Your task to perform on an android device: add a label to a message in the gmail app Image 0: 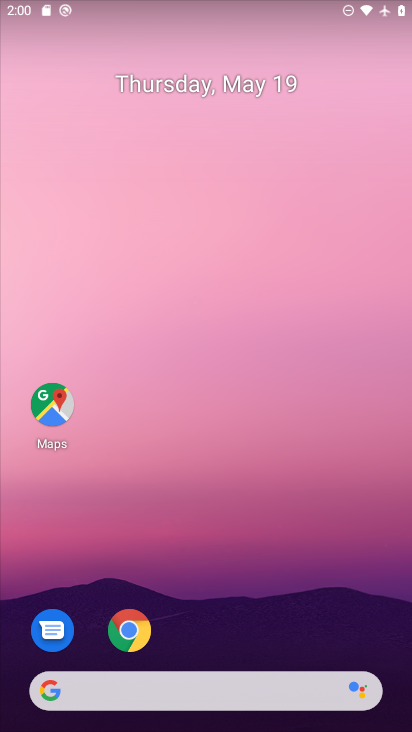
Step 0: drag from (213, 644) to (183, 104)
Your task to perform on an android device: add a label to a message in the gmail app Image 1: 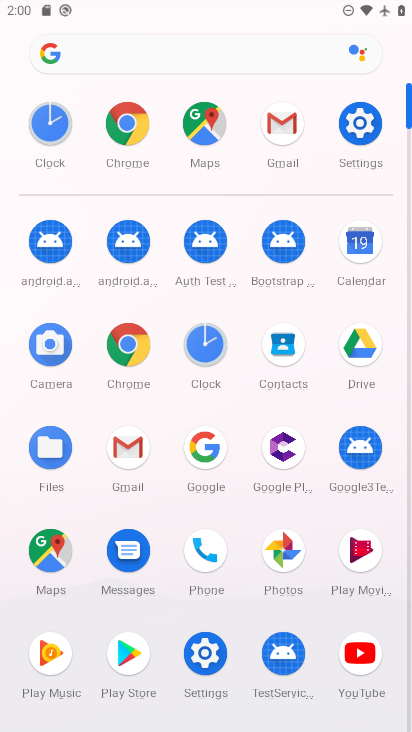
Step 1: click (132, 453)
Your task to perform on an android device: add a label to a message in the gmail app Image 2: 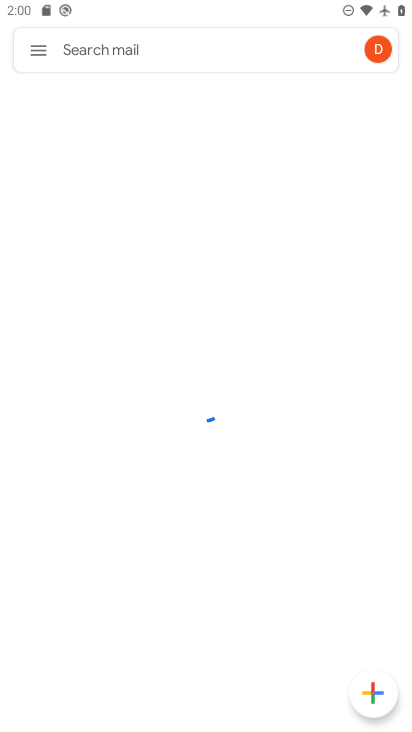
Step 2: task complete